Your task to perform on an android device: open app "Skype" (install if not already installed) Image 0: 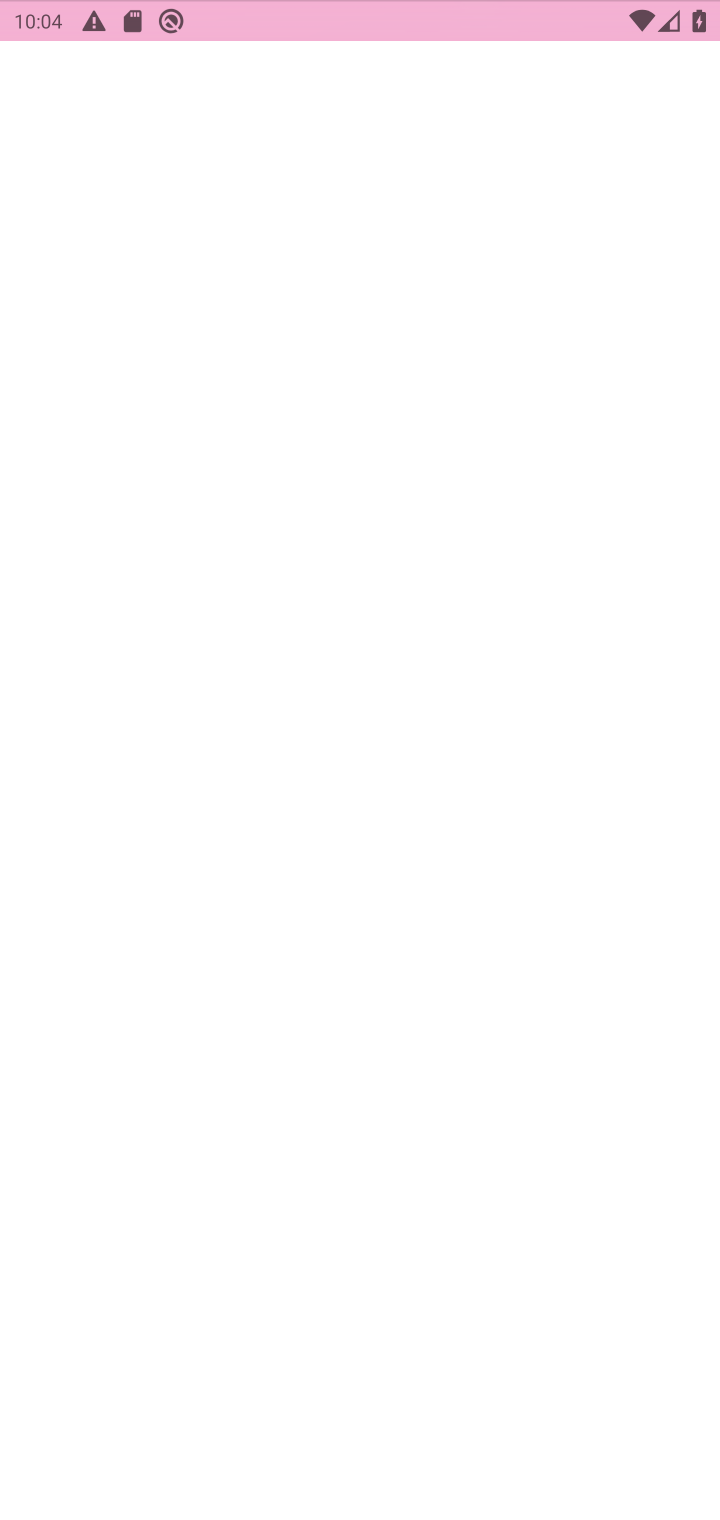
Step 0: press home button
Your task to perform on an android device: open app "Skype" (install if not already installed) Image 1: 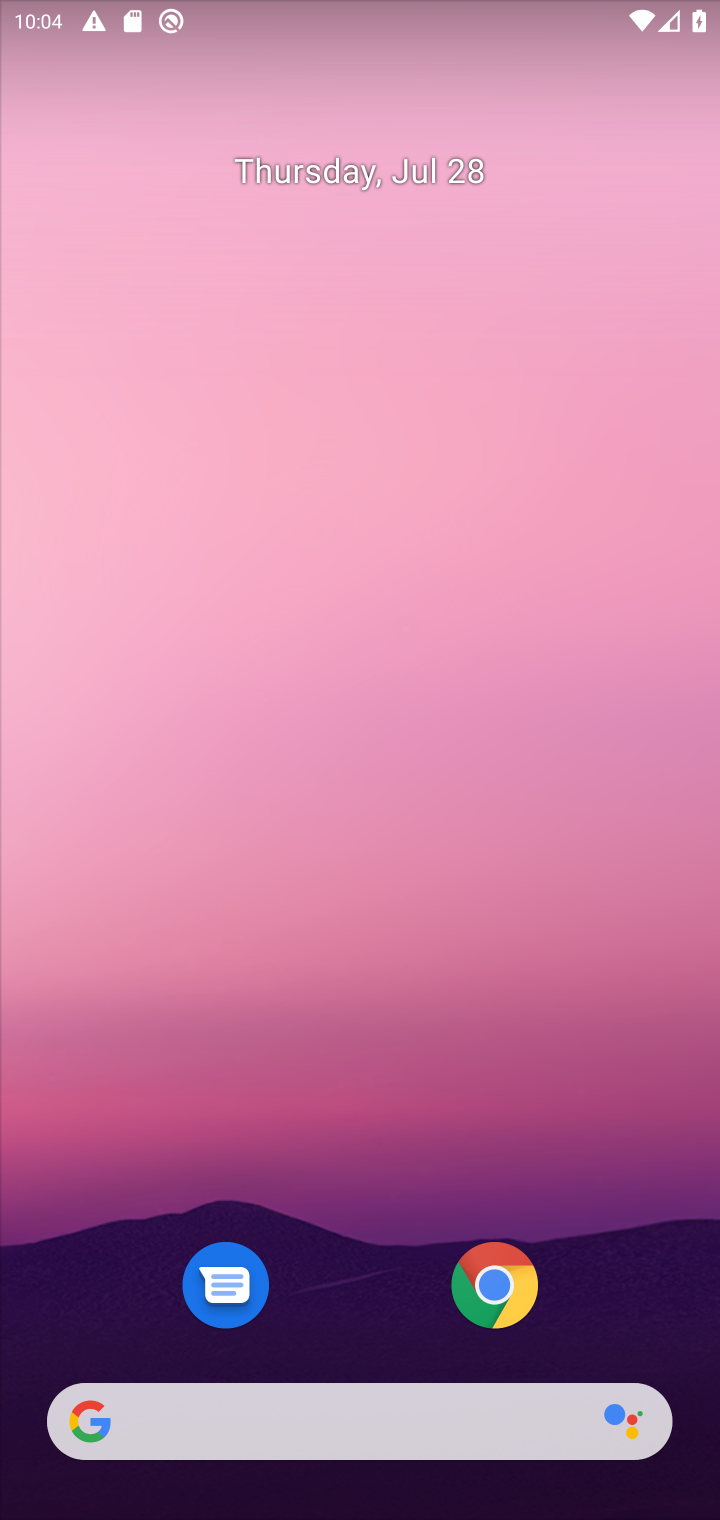
Step 1: drag from (623, 1144) to (311, 29)
Your task to perform on an android device: open app "Skype" (install if not already installed) Image 2: 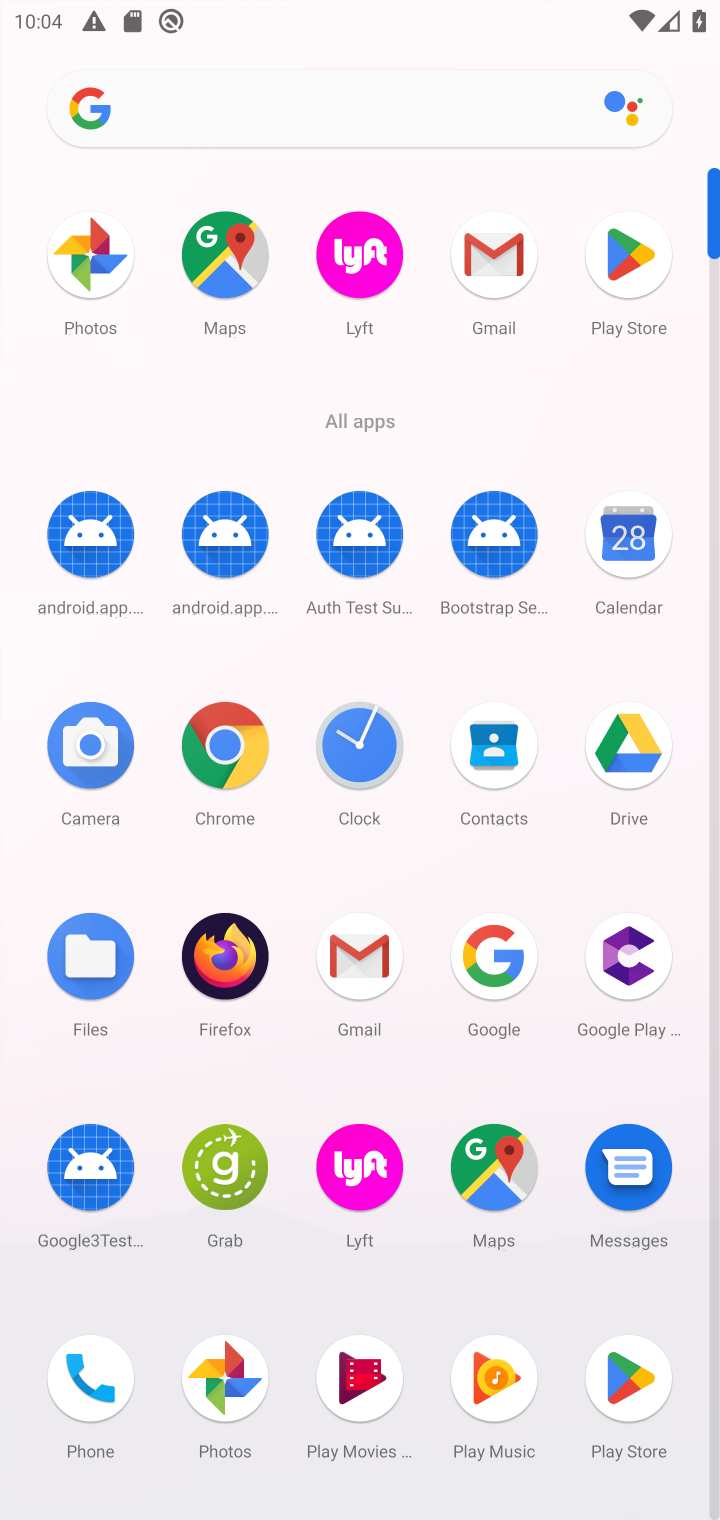
Step 2: click (624, 246)
Your task to perform on an android device: open app "Skype" (install if not already installed) Image 3: 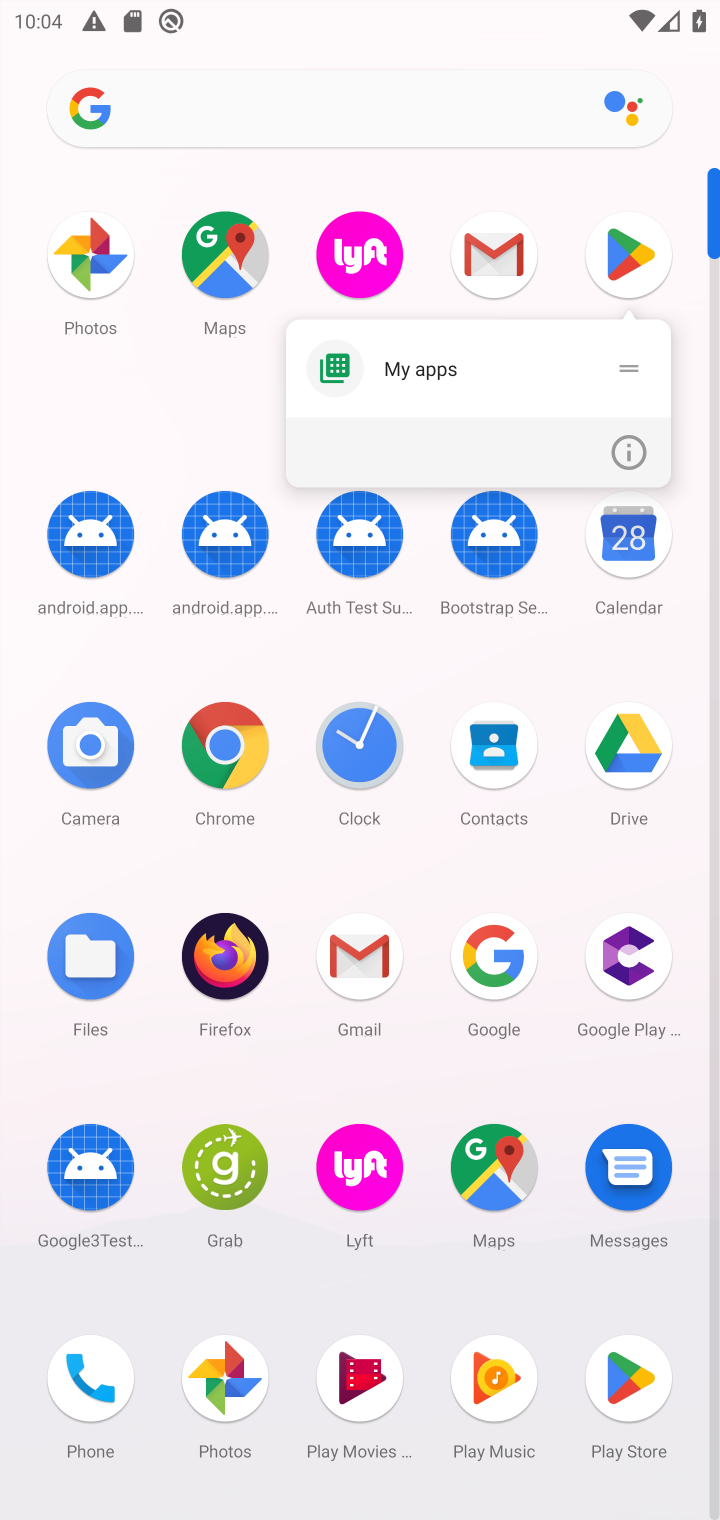
Step 3: click (613, 252)
Your task to perform on an android device: open app "Skype" (install if not already installed) Image 4: 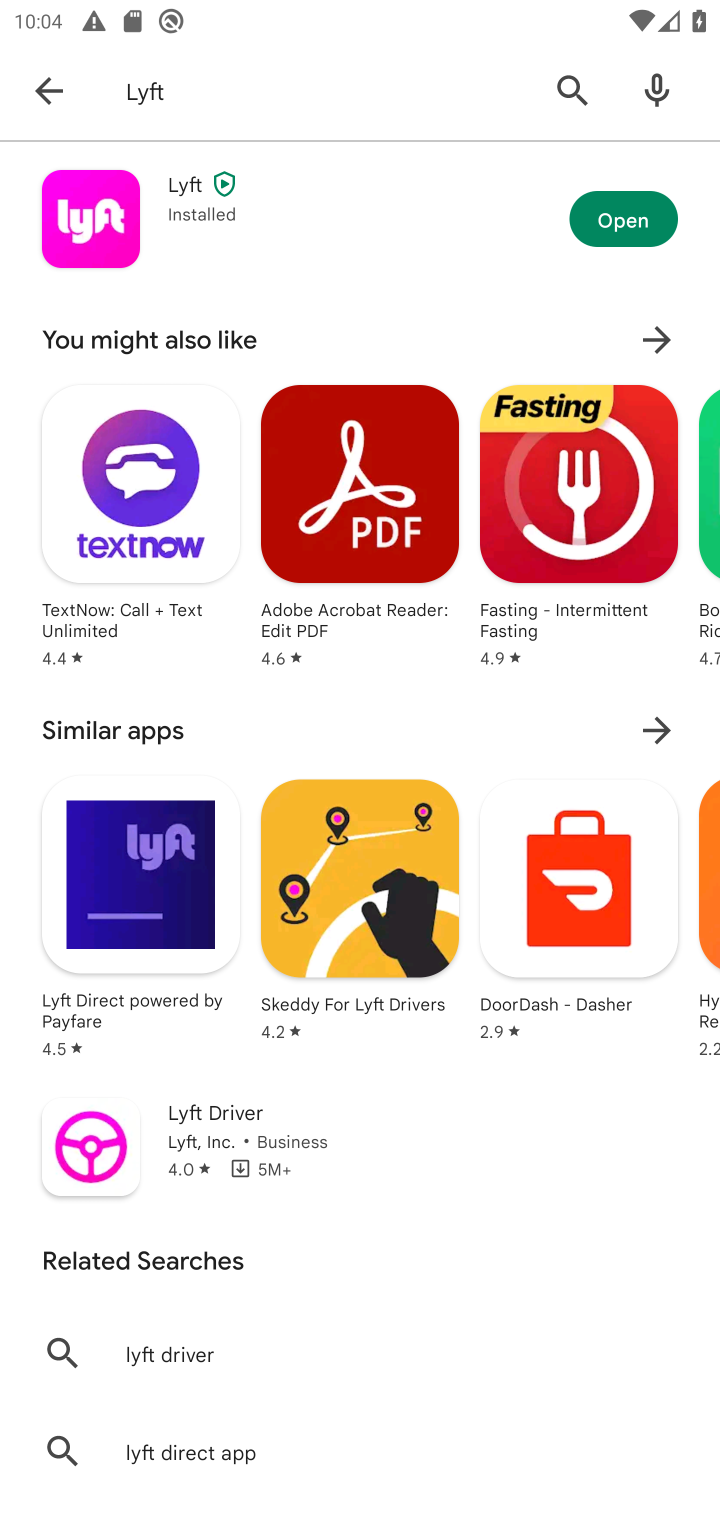
Step 4: click (399, 102)
Your task to perform on an android device: open app "Skype" (install if not already installed) Image 5: 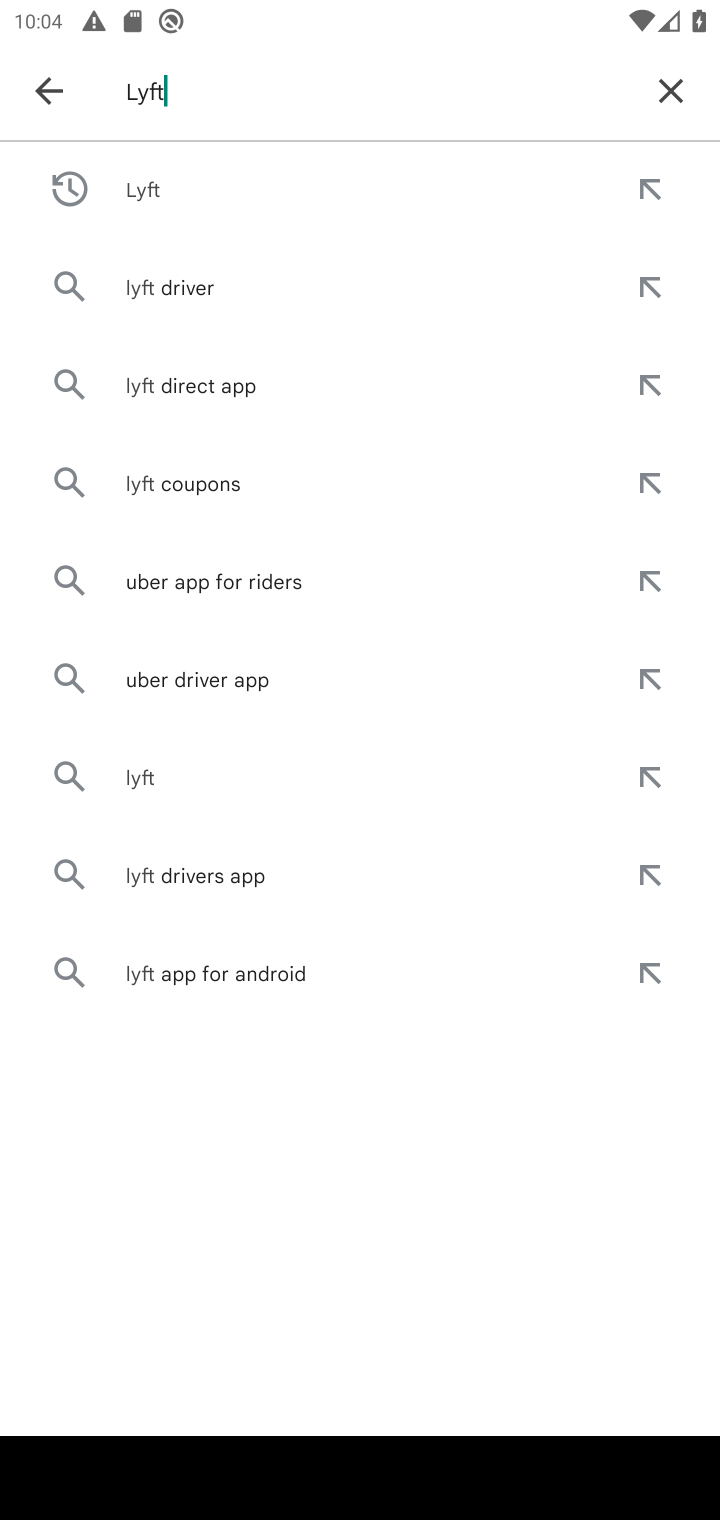
Step 5: click (676, 83)
Your task to perform on an android device: open app "Skype" (install if not already installed) Image 6: 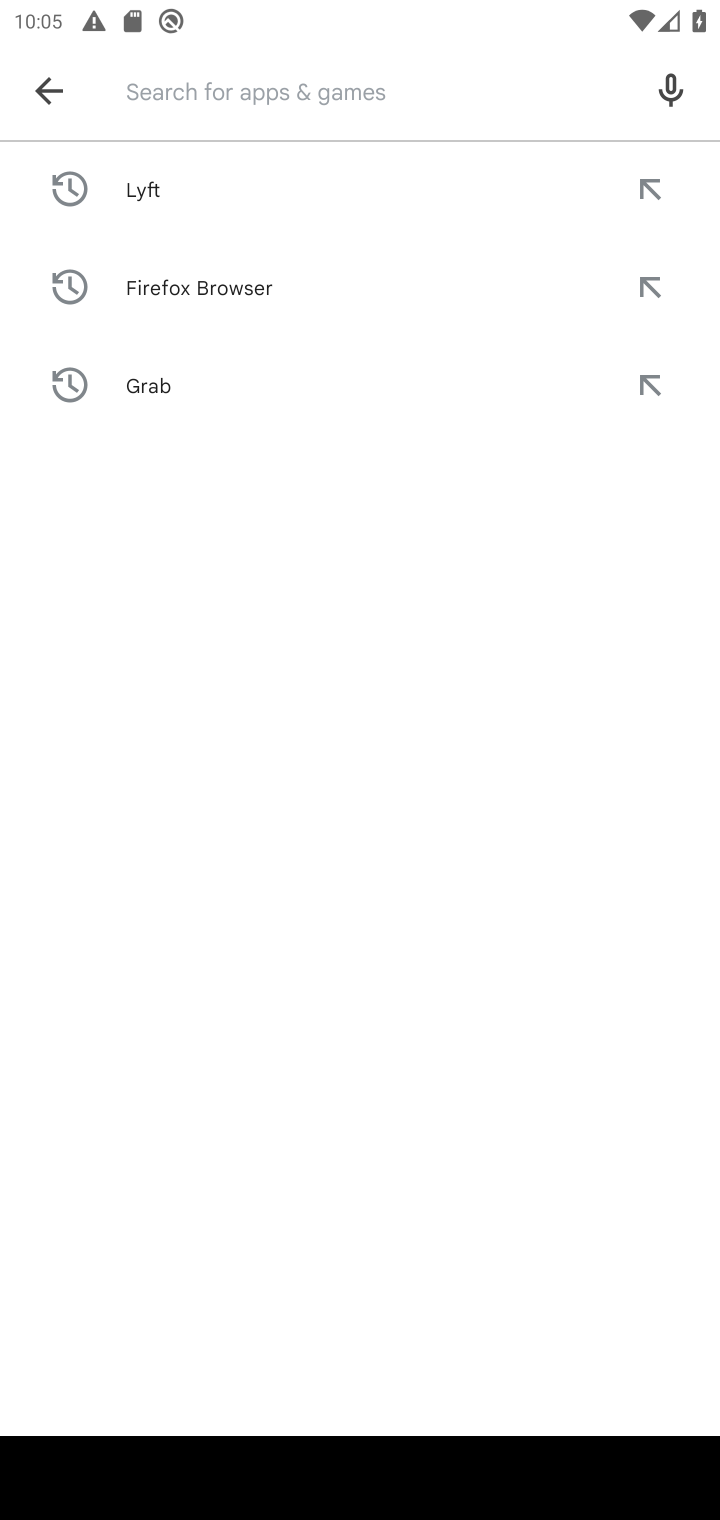
Step 6: type "Skype"
Your task to perform on an android device: open app "Skype" (install if not already installed) Image 7: 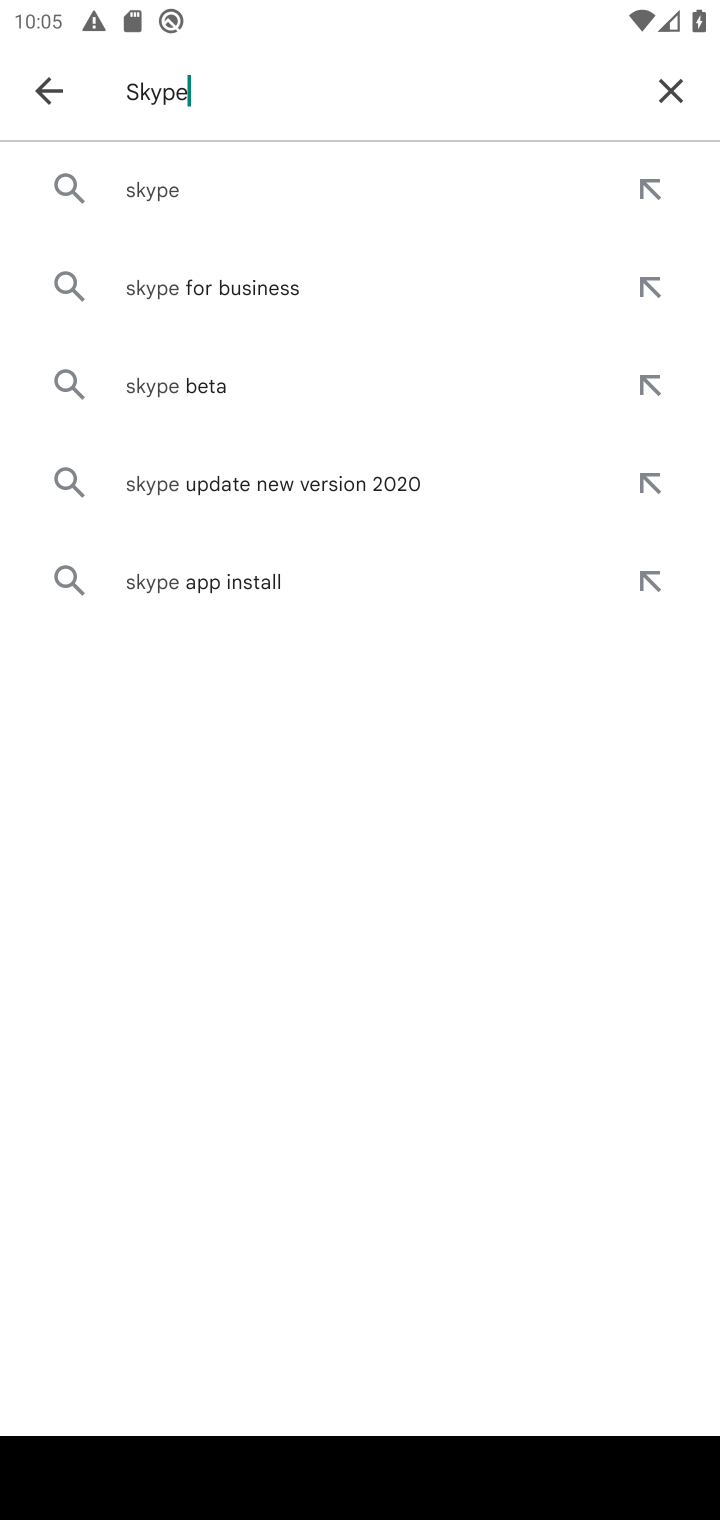
Step 7: press enter
Your task to perform on an android device: open app "Skype" (install if not already installed) Image 8: 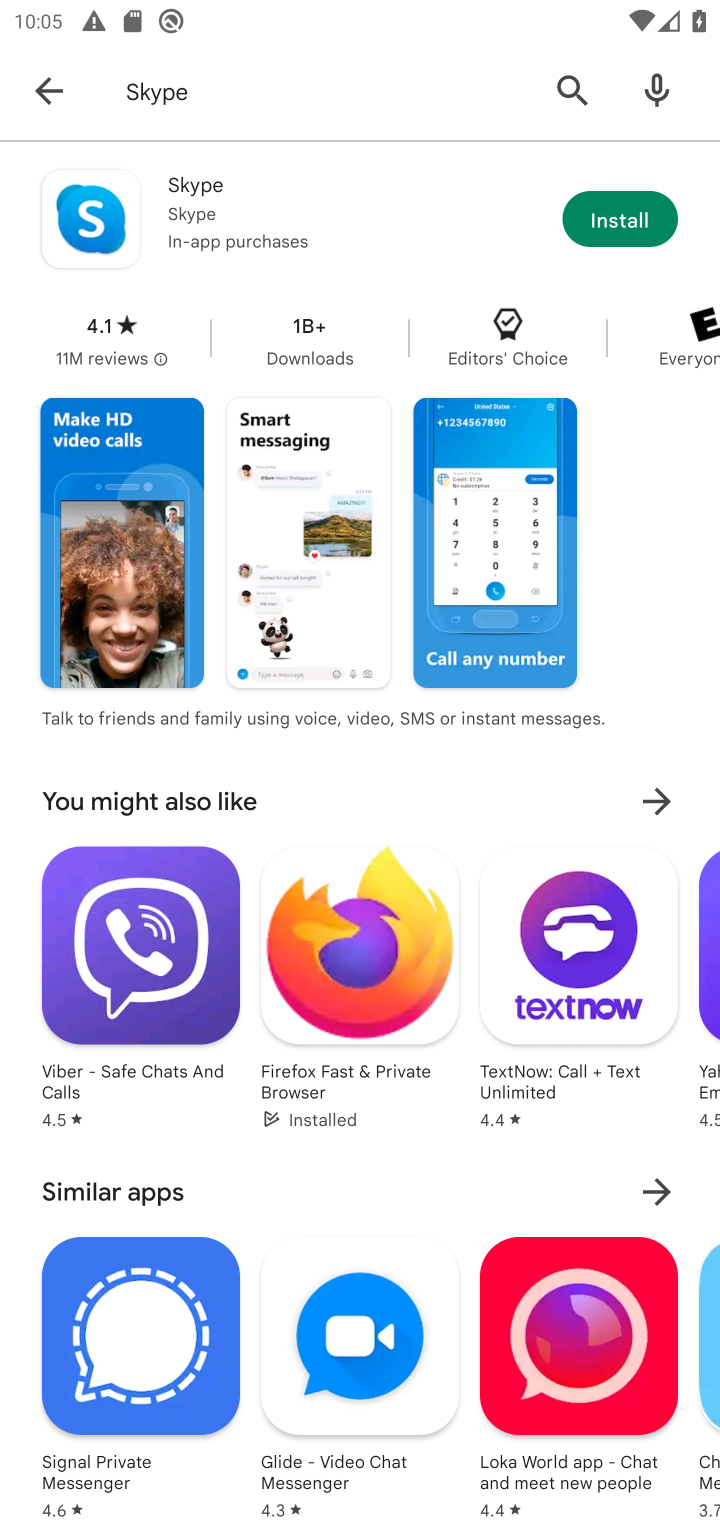
Step 8: click (635, 220)
Your task to perform on an android device: open app "Skype" (install if not already installed) Image 9: 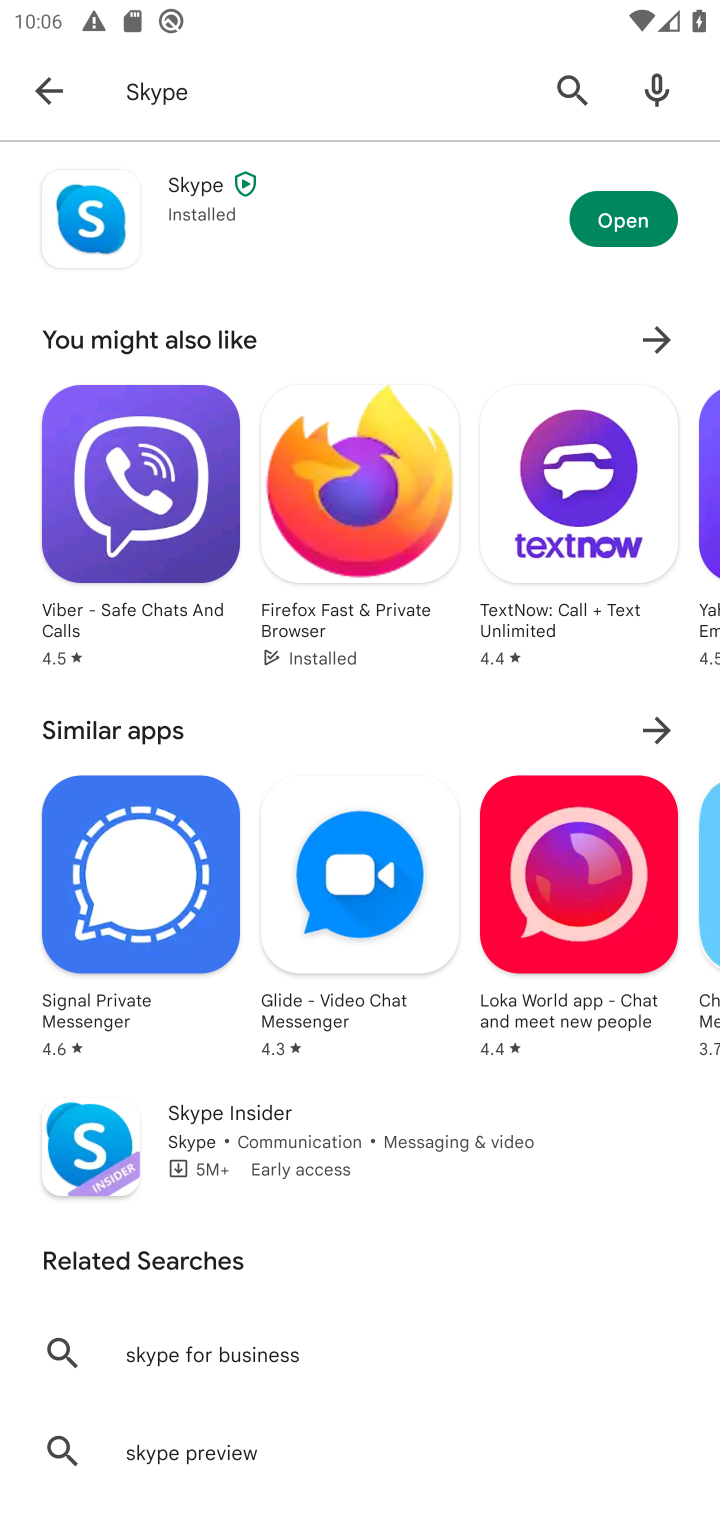
Step 9: click (656, 210)
Your task to perform on an android device: open app "Skype" (install if not already installed) Image 10: 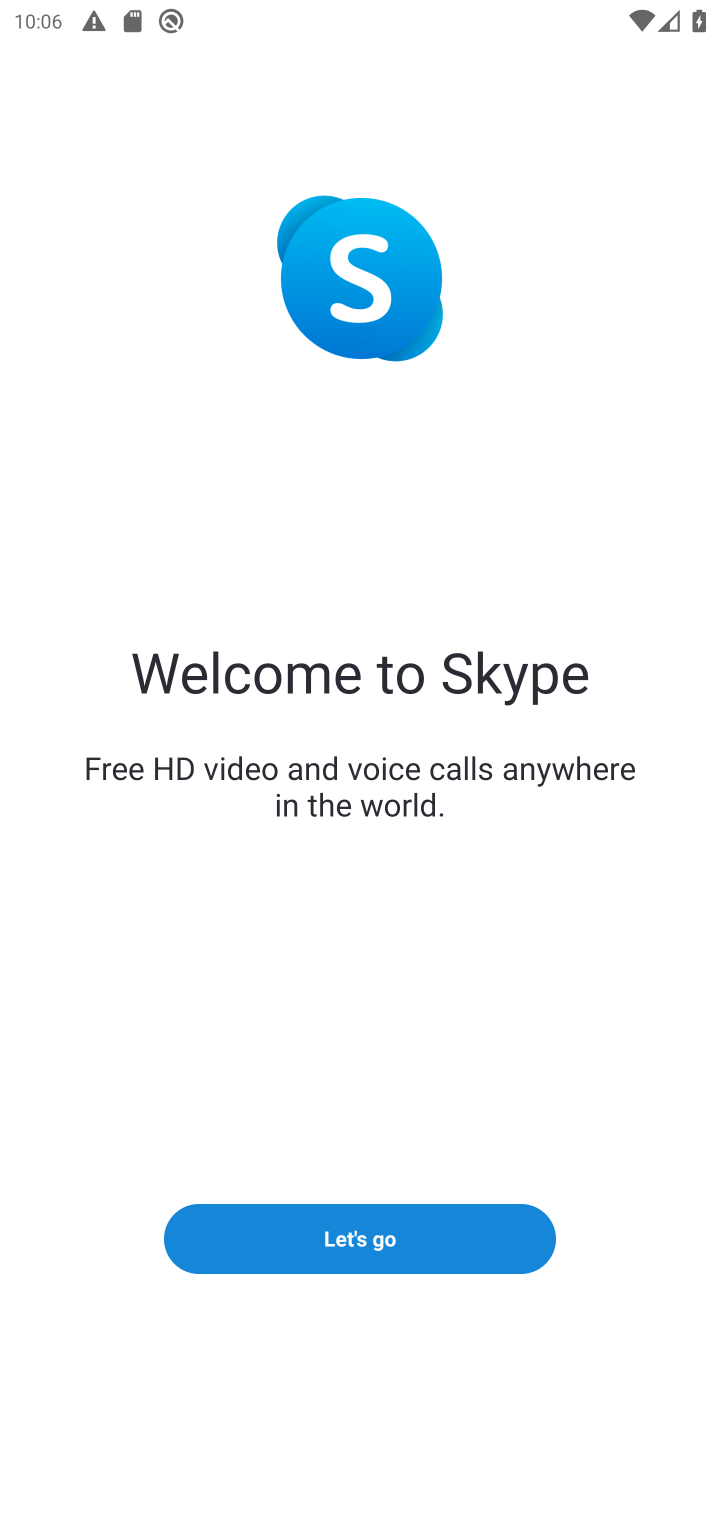
Step 10: task complete